Your task to perform on an android device: open a new tab in the chrome app Image 0: 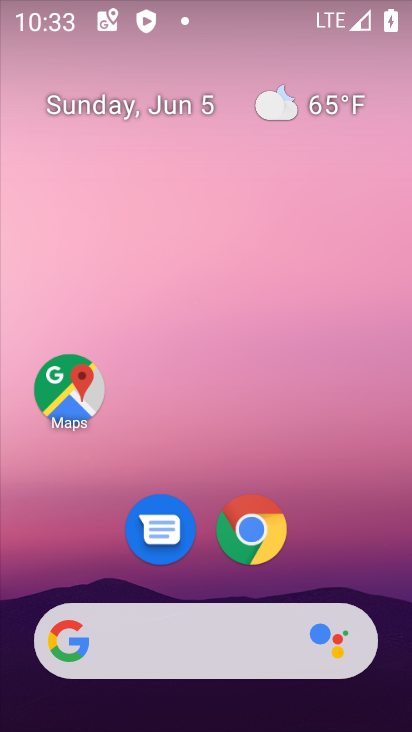
Step 0: click (262, 550)
Your task to perform on an android device: open a new tab in the chrome app Image 1: 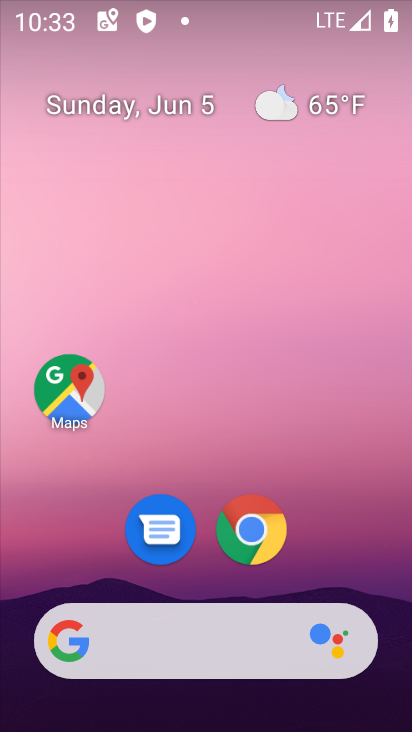
Step 1: click (262, 550)
Your task to perform on an android device: open a new tab in the chrome app Image 2: 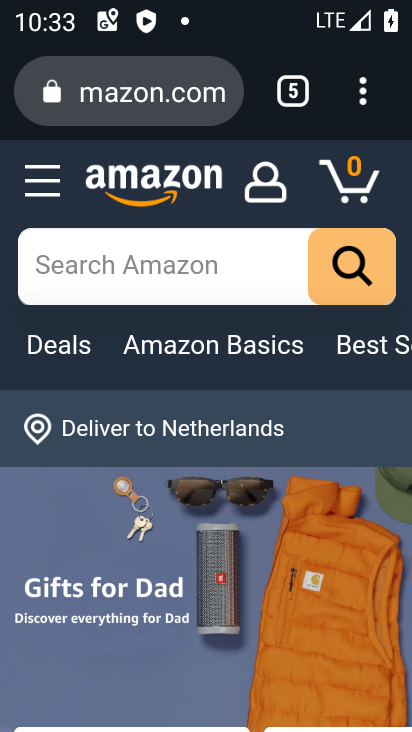
Step 2: click (363, 71)
Your task to perform on an android device: open a new tab in the chrome app Image 3: 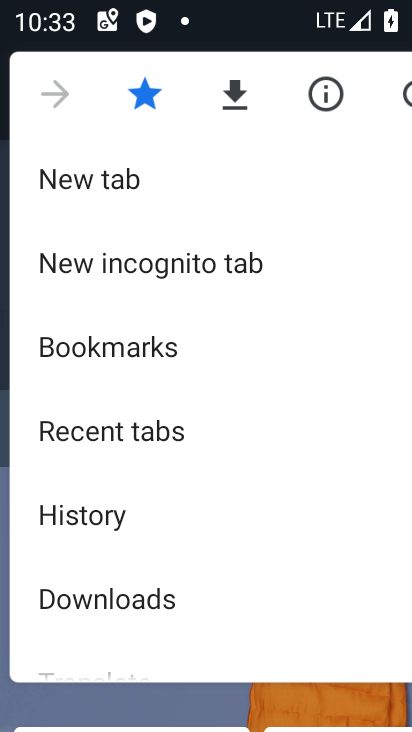
Step 3: click (250, 185)
Your task to perform on an android device: open a new tab in the chrome app Image 4: 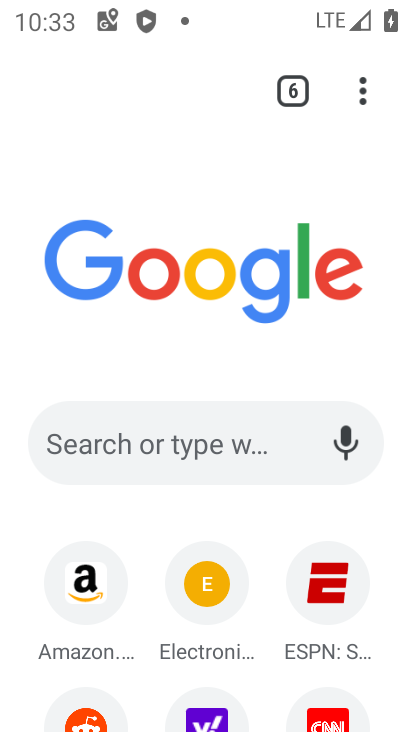
Step 4: task complete